Your task to perform on an android device: Show me the alarms in the clock app Image 0: 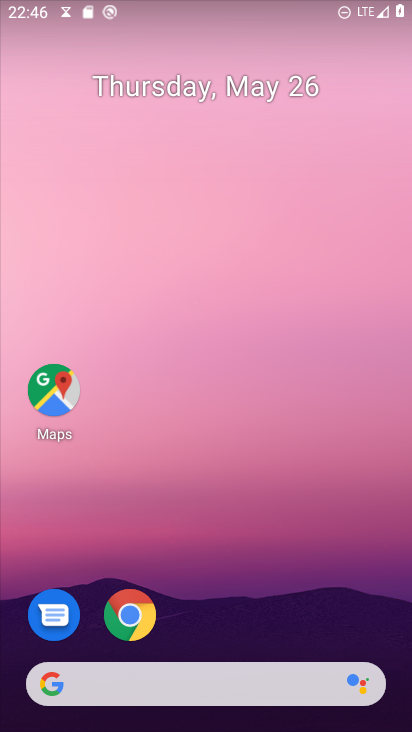
Step 0: drag from (251, 612) to (309, 284)
Your task to perform on an android device: Show me the alarms in the clock app Image 1: 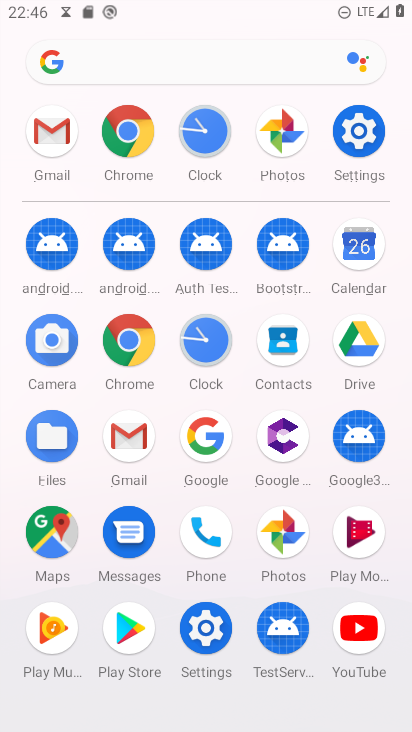
Step 1: click (197, 330)
Your task to perform on an android device: Show me the alarms in the clock app Image 2: 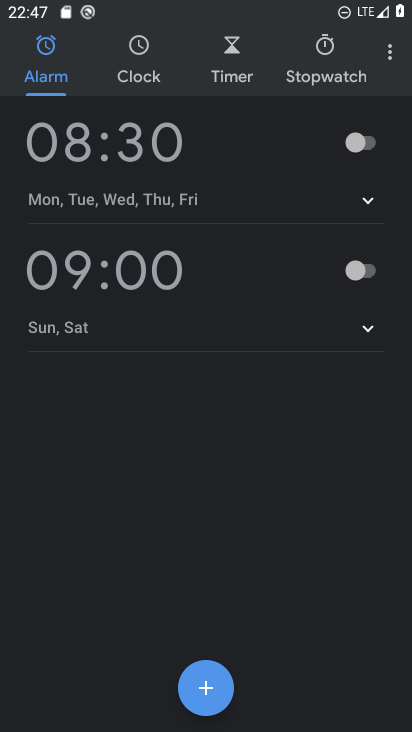
Step 2: task complete